Your task to perform on an android device: open device folders in google photos Image 0: 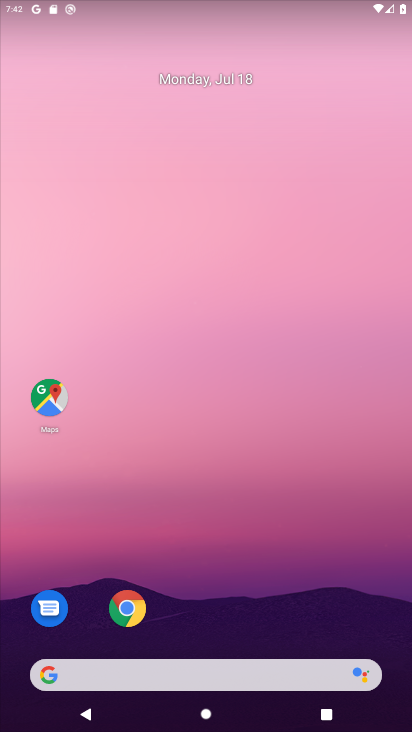
Step 0: drag from (214, 636) to (194, 44)
Your task to perform on an android device: open device folders in google photos Image 1: 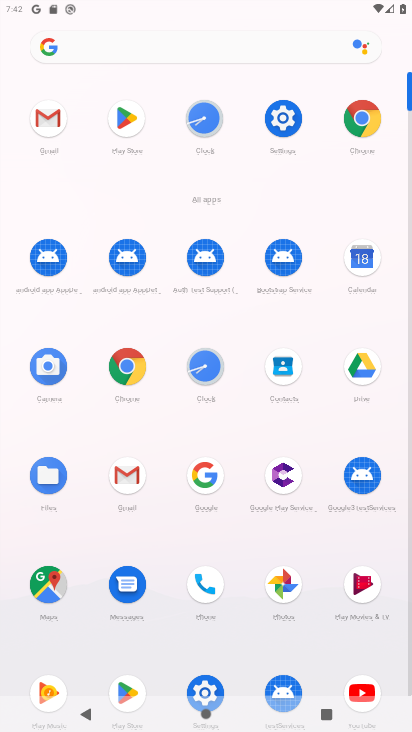
Step 1: click (276, 583)
Your task to perform on an android device: open device folders in google photos Image 2: 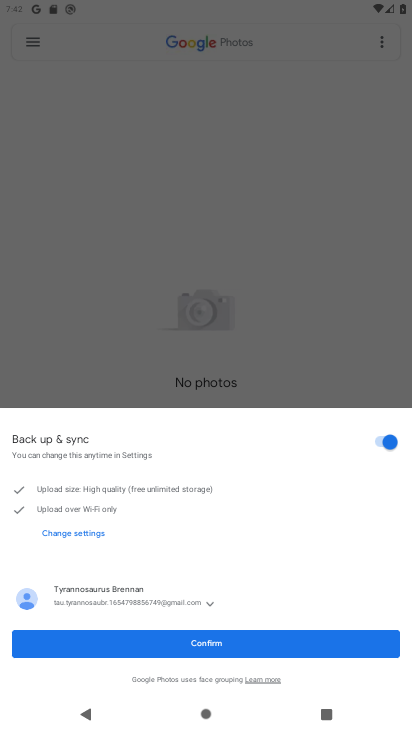
Step 2: click (264, 641)
Your task to perform on an android device: open device folders in google photos Image 3: 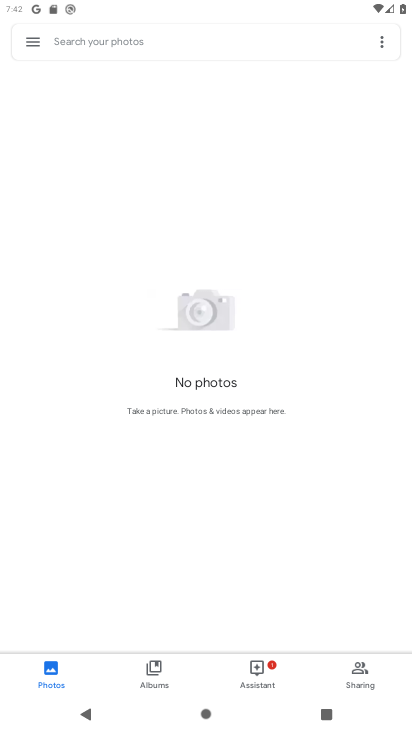
Step 3: click (30, 24)
Your task to perform on an android device: open device folders in google photos Image 4: 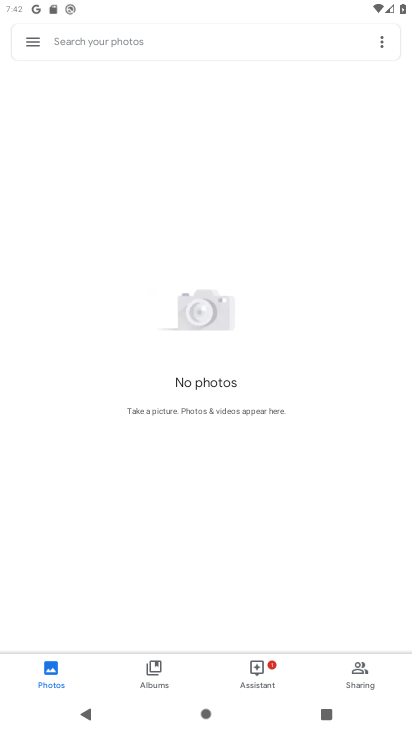
Step 4: click (35, 45)
Your task to perform on an android device: open device folders in google photos Image 5: 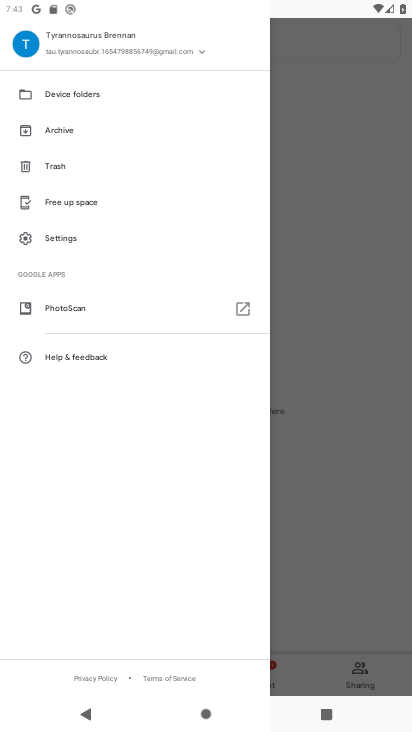
Step 5: click (69, 98)
Your task to perform on an android device: open device folders in google photos Image 6: 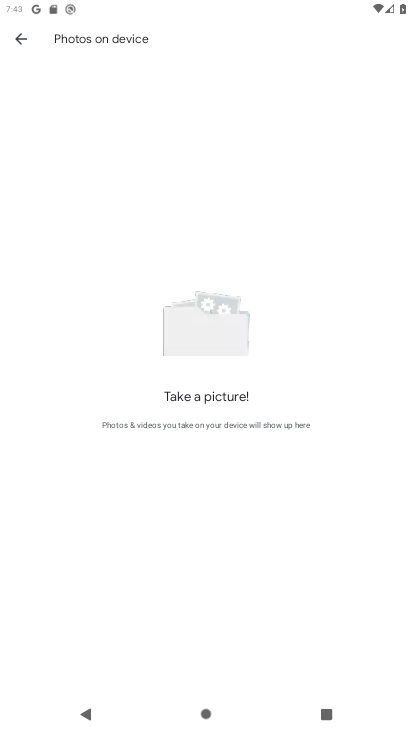
Step 6: task complete